Your task to perform on an android device: Open privacy settings Image 0: 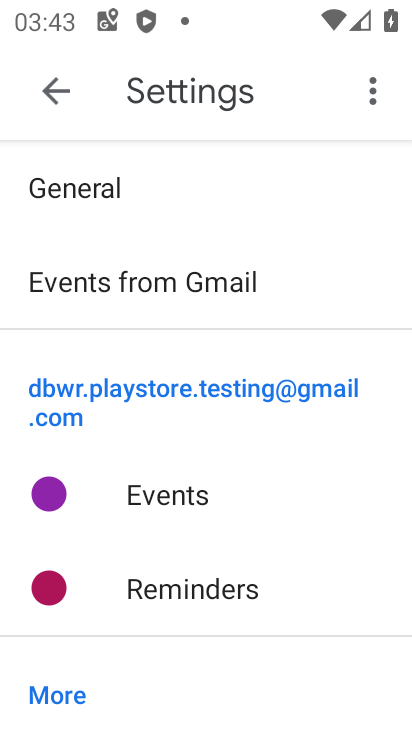
Step 0: press home button
Your task to perform on an android device: Open privacy settings Image 1: 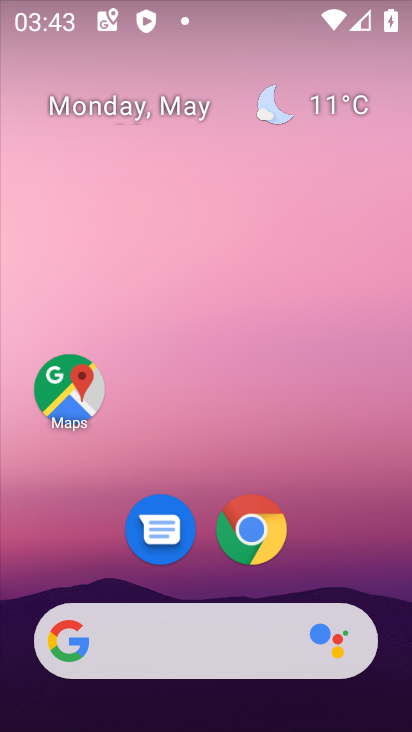
Step 1: drag from (347, 512) to (221, 90)
Your task to perform on an android device: Open privacy settings Image 2: 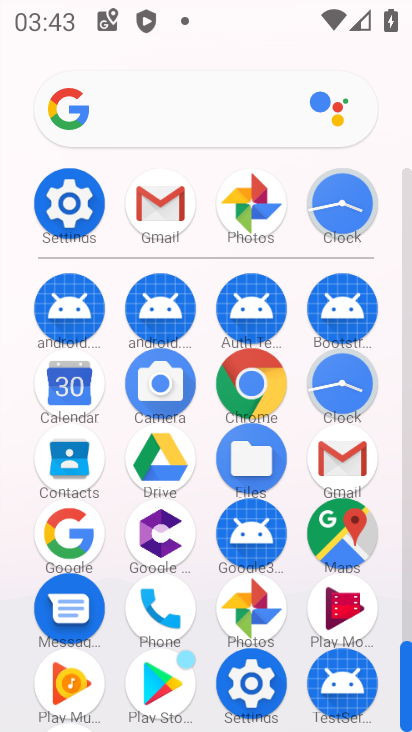
Step 2: click (78, 199)
Your task to perform on an android device: Open privacy settings Image 3: 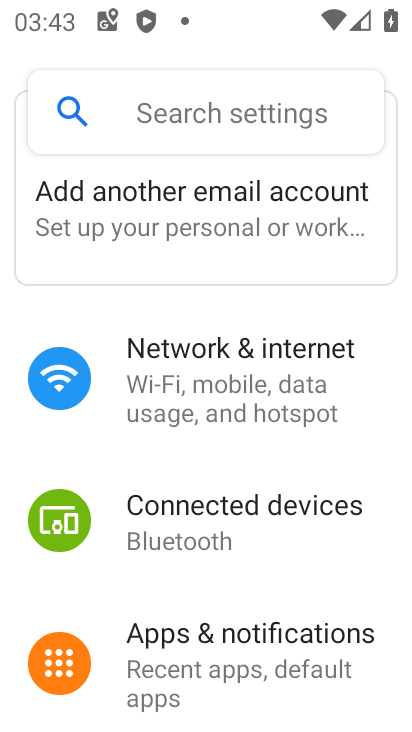
Step 3: drag from (197, 643) to (264, 178)
Your task to perform on an android device: Open privacy settings Image 4: 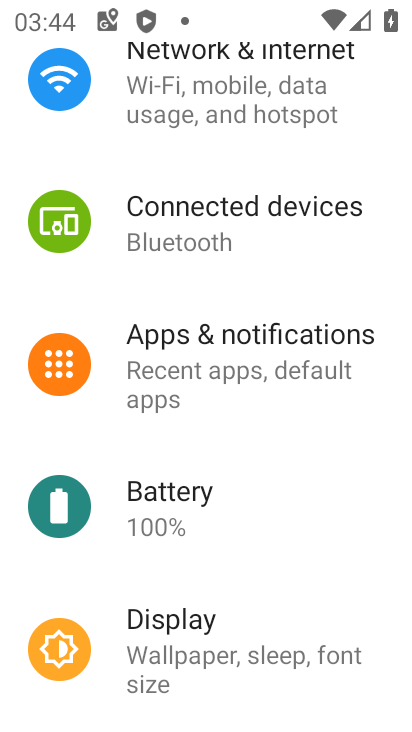
Step 4: drag from (249, 580) to (236, 206)
Your task to perform on an android device: Open privacy settings Image 5: 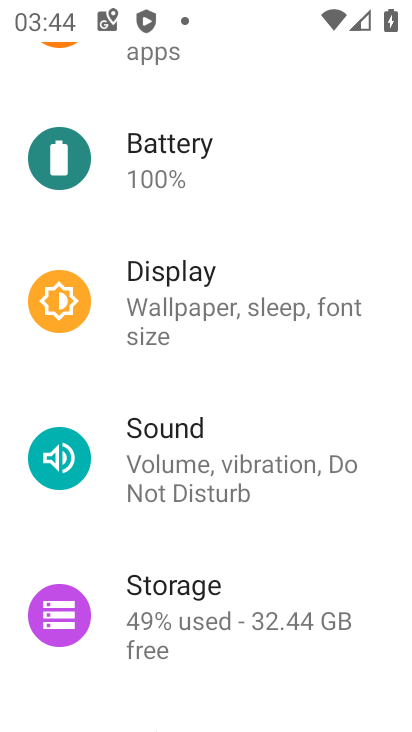
Step 5: drag from (243, 267) to (256, 657)
Your task to perform on an android device: Open privacy settings Image 6: 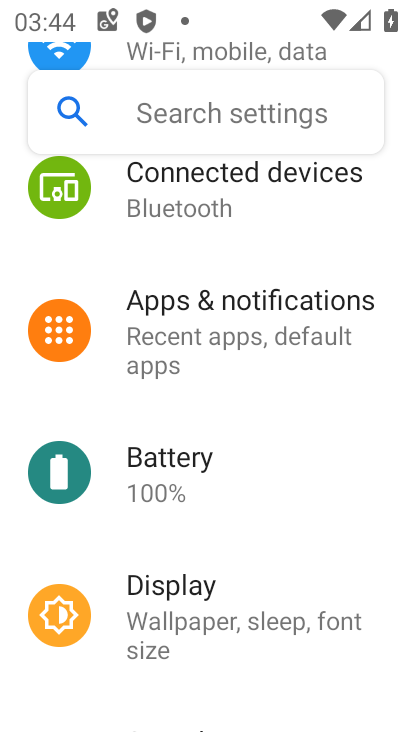
Step 6: drag from (255, 328) to (288, 623)
Your task to perform on an android device: Open privacy settings Image 7: 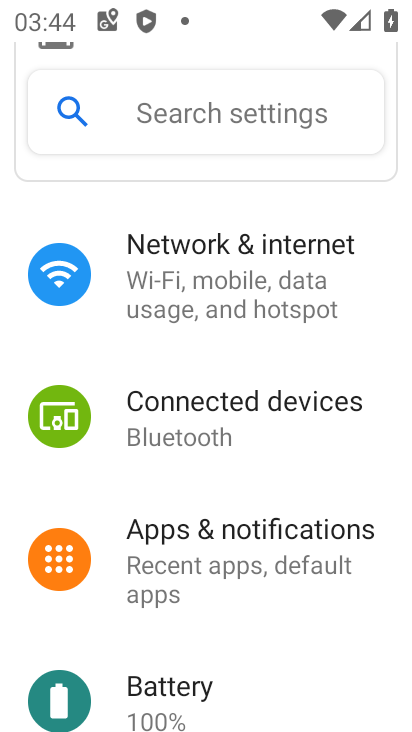
Step 7: drag from (289, 609) to (286, 234)
Your task to perform on an android device: Open privacy settings Image 8: 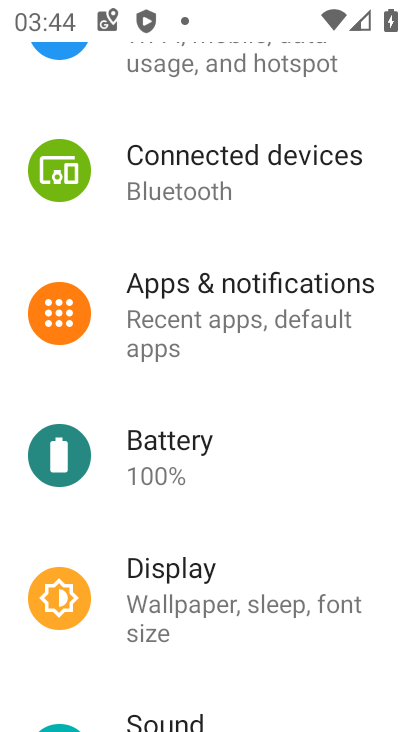
Step 8: drag from (223, 576) to (243, 238)
Your task to perform on an android device: Open privacy settings Image 9: 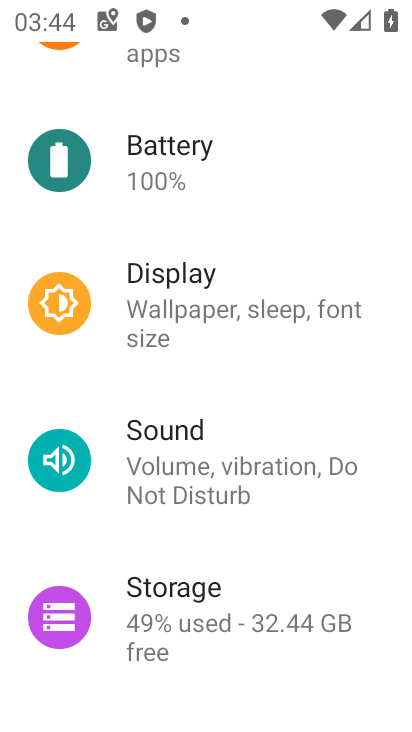
Step 9: drag from (232, 535) to (277, 183)
Your task to perform on an android device: Open privacy settings Image 10: 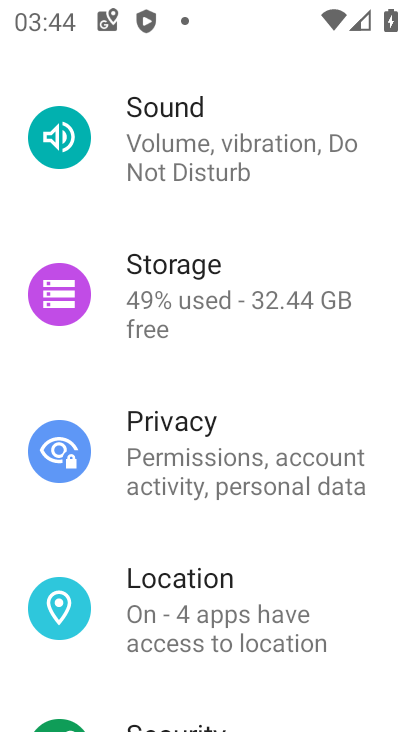
Step 10: click (191, 428)
Your task to perform on an android device: Open privacy settings Image 11: 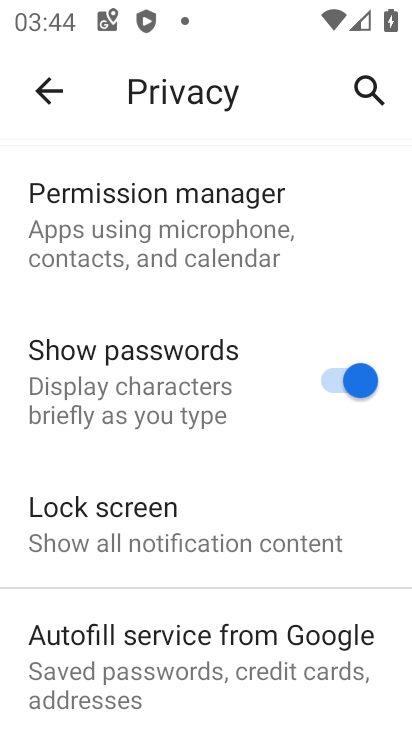
Step 11: task complete